Your task to perform on an android device: set default search engine in the chrome app Image 0: 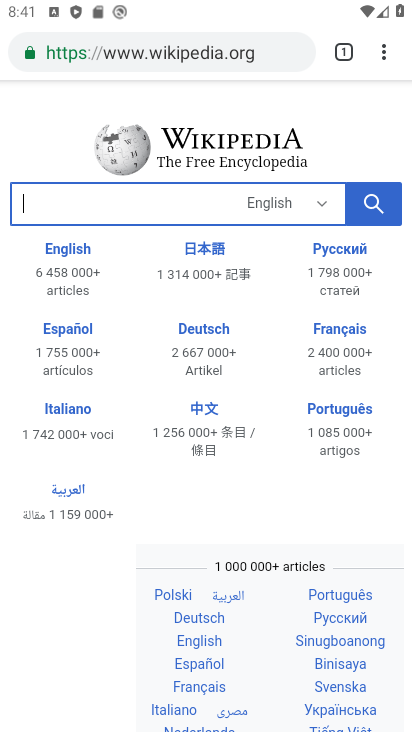
Step 0: click (381, 51)
Your task to perform on an android device: set default search engine in the chrome app Image 1: 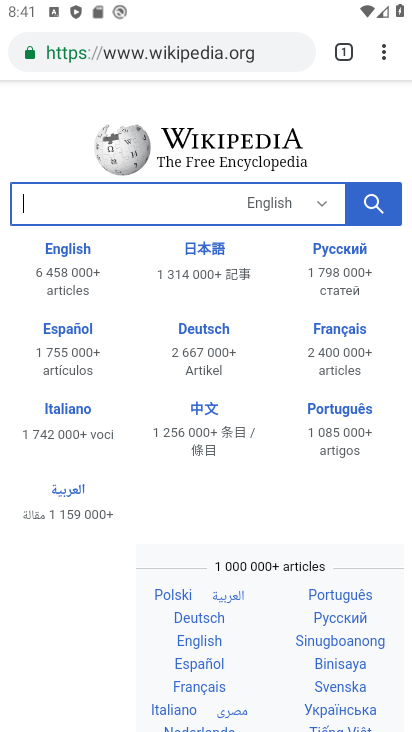
Step 1: click (381, 51)
Your task to perform on an android device: set default search engine in the chrome app Image 2: 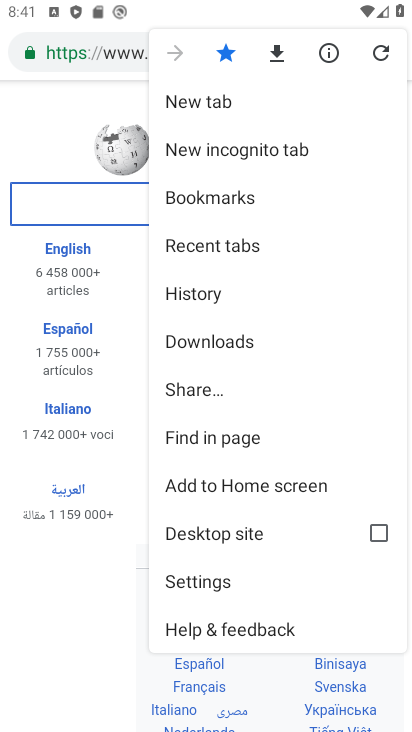
Step 2: click (201, 584)
Your task to perform on an android device: set default search engine in the chrome app Image 3: 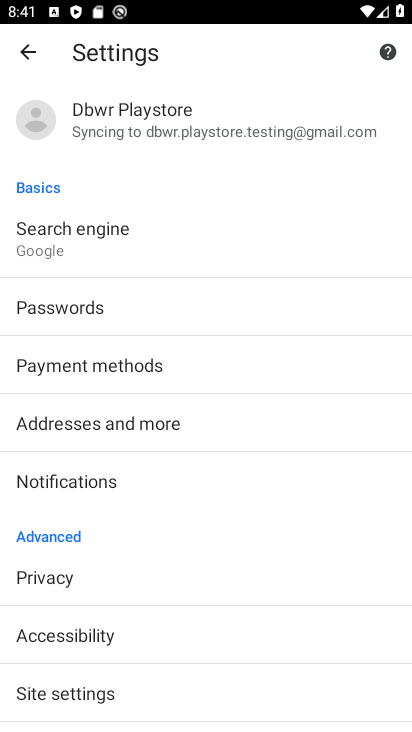
Step 3: click (57, 231)
Your task to perform on an android device: set default search engine in the chrome app Image 4: 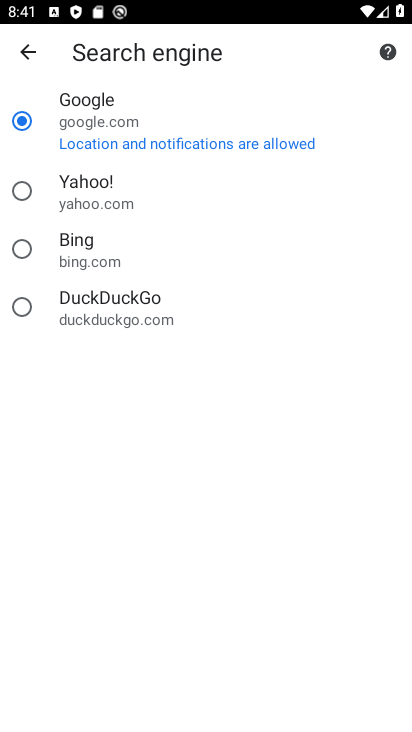
Step 4: click (17, 188)
Your task to perform on an android device: set default search engine in the chrome app Image 5: 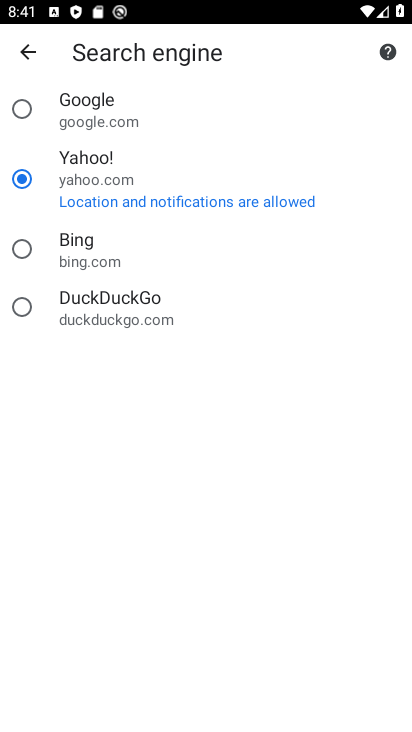
Step 5: task complete